Your task to perform on an android device: turn on data saver in the chrome app Image 0: 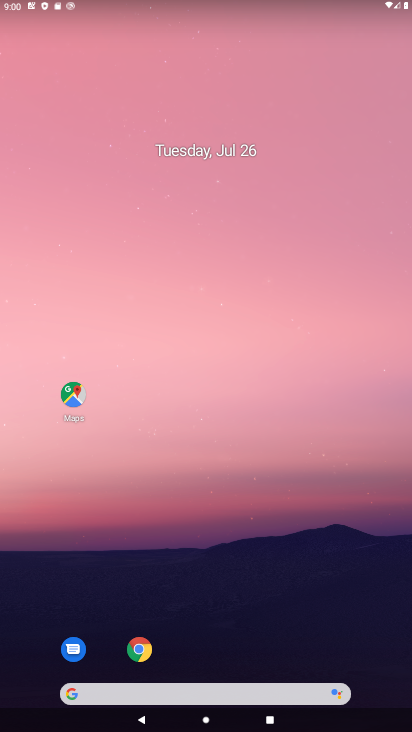
Step 0: drag from (224, 647) to (358, 77)
Your task to perform on an android device: turn on data saver in the chrome app Image 1: 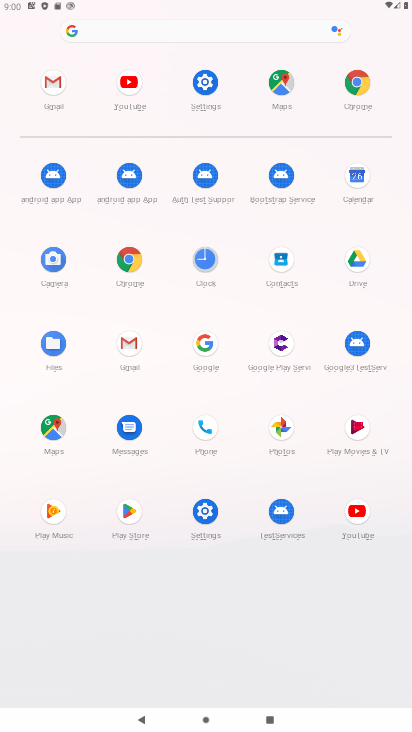
Step 1: click (121, 262)
Your task to perform on an android device: turn on data saver in the chrome app Image 2: 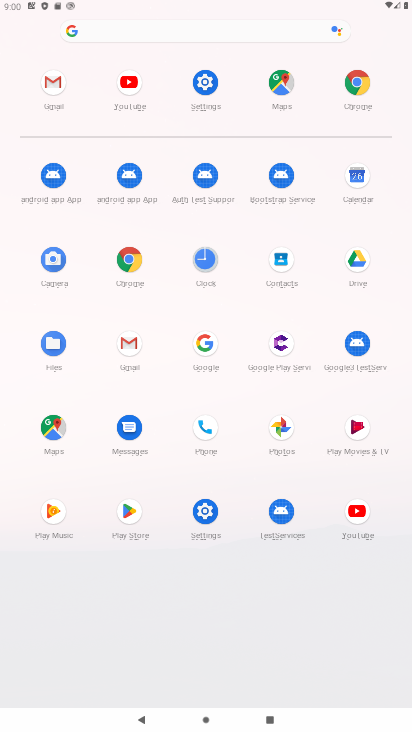
Step 2: click (121, 262)
Your task to perform on an android device: turn on data saver in the chrome app Image 3: 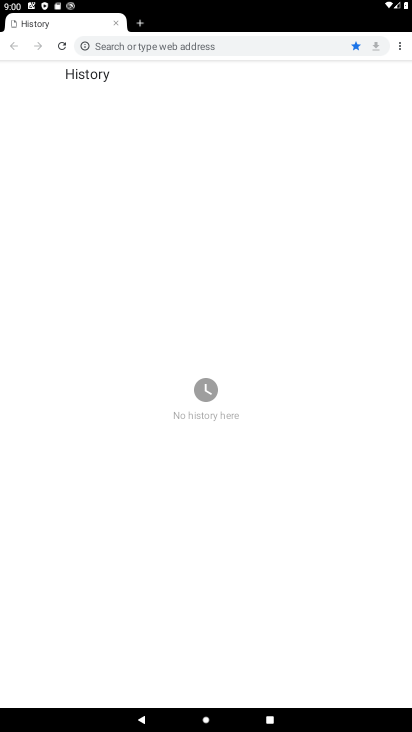
Step 3: drag from (396, 43) to (329, 213)
Your task to perform on an android device: turn on data saver in the chrome app Image 4: 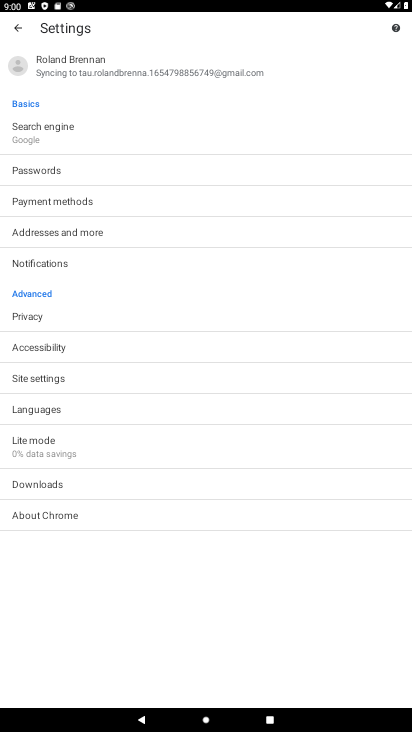
Step 4: click (74, 385)
Your task to perform on an android device: turn on data saver in the chrome app Image 5: 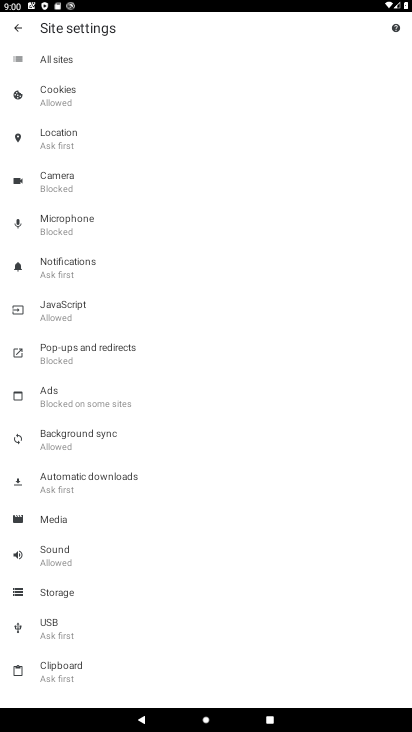
Step 5: click (13, 19)
Your task to perform on an android device: turn on data saver in the chrome app Image 6: 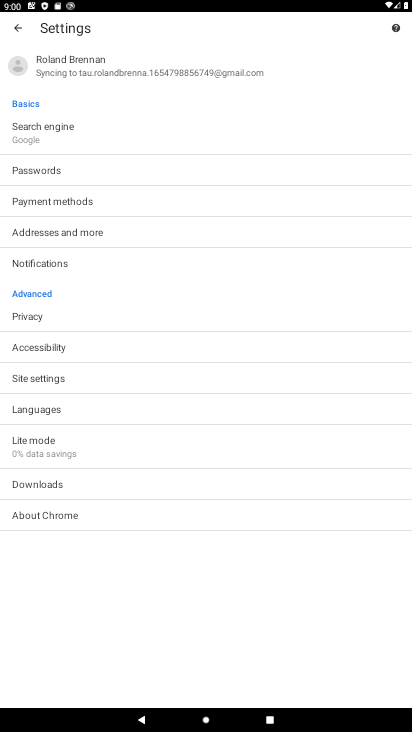
Step 6: click (44, 447)
Your task to perform on an android device: turn on data saver in the chrome app Image 7: 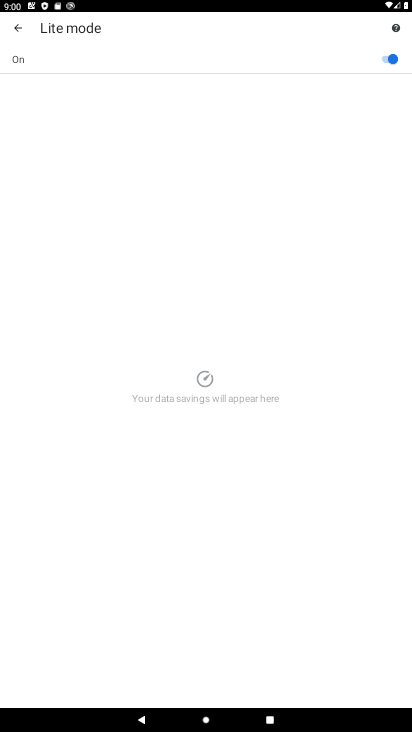
Step 7: task complete